Your task to perform on an android device: Show me recent news Image 0: 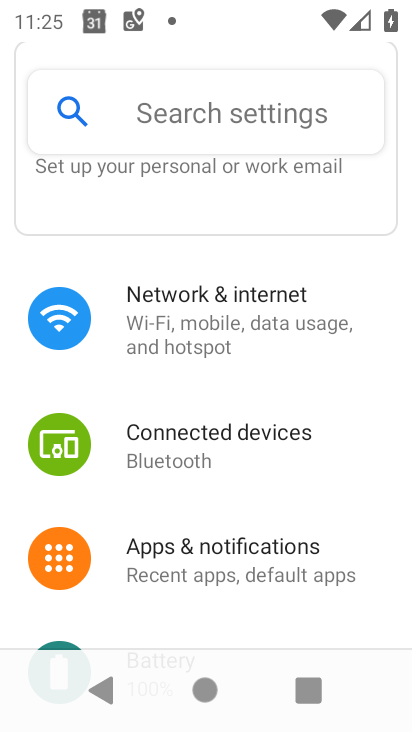
Step 0: press home button
Your task to perform on an android device: Show me recent news Image 1: 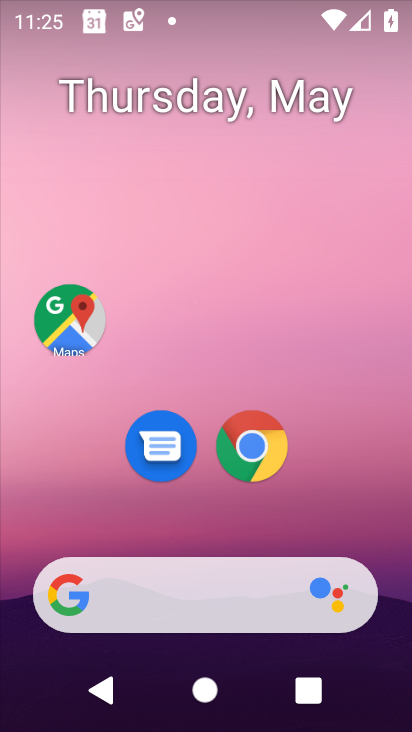
Step 1: drag from (272, 526) to (347, 0)
Your task to perform on an android device: Show me recent news Image 2: 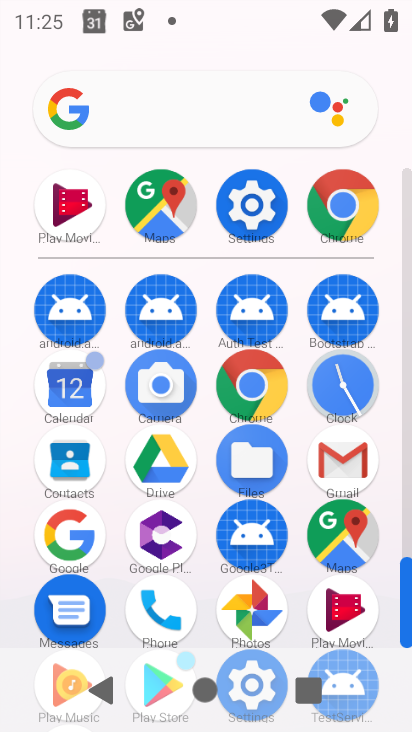
Step 2: click (238, 379)
Your task to perform on an android device: Show me recent news Image 3: 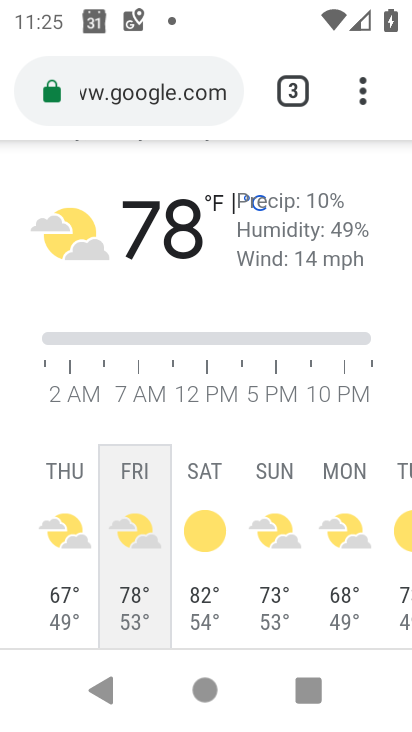
Step 3: click (214, 95)
Your task to perform on an android device: Show me recent news Image 4: 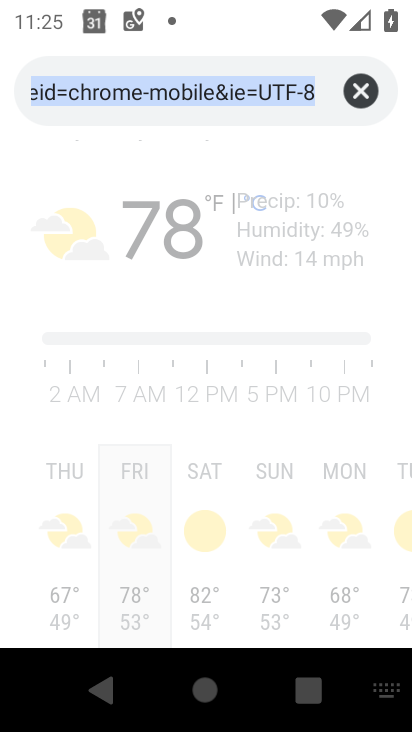
Step 4: click (365, 97)
Your task to perform on an android device: Show me recent news Image 5: 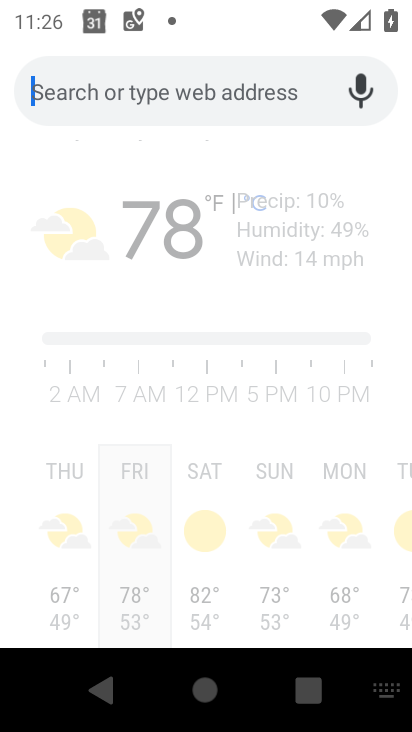
Step 5: type "recent news"
Your task to perform on an android device: Show me recent news Image 6: 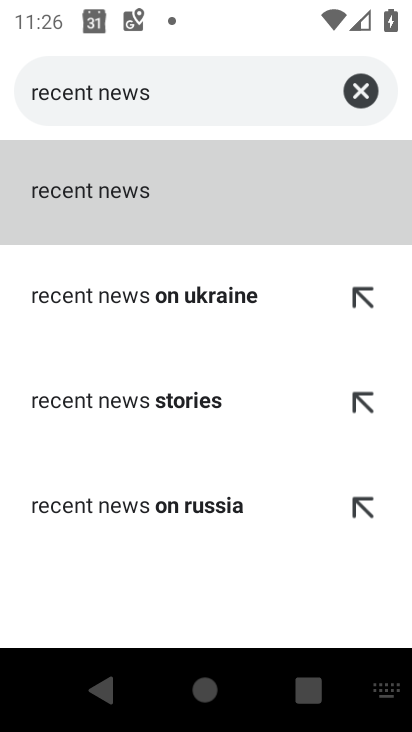
Step 6: click (83, 191)
Your task to perform on an android device: Show me recent news Image 7: 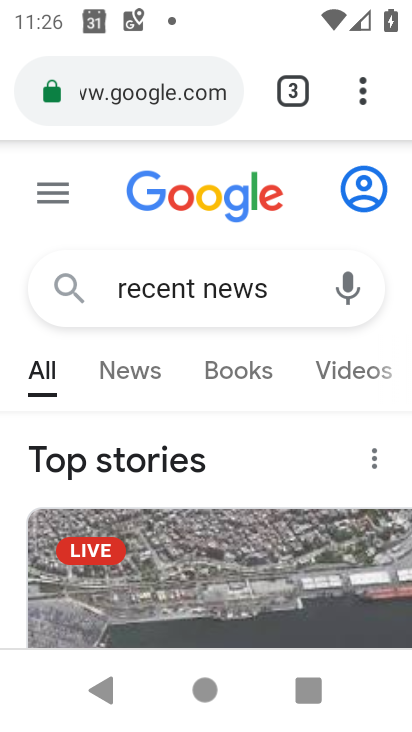
Step 7: task complete